Your task to perform on an android device: delete location history Image 0: 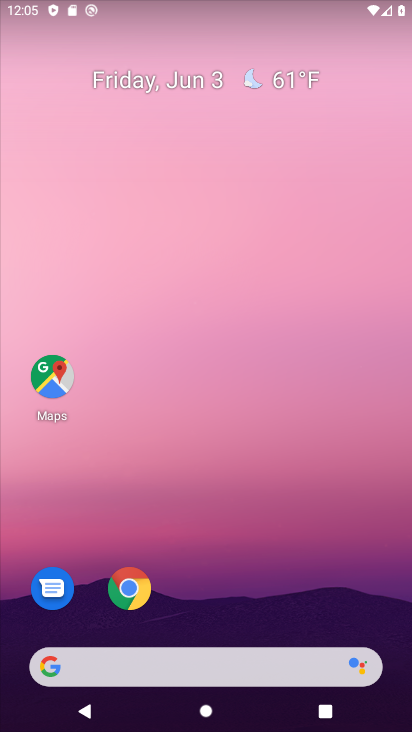
Step 0: drag from (184, 621) to (166, 239)
Your task to perform on an android device: delete location history Image 1: 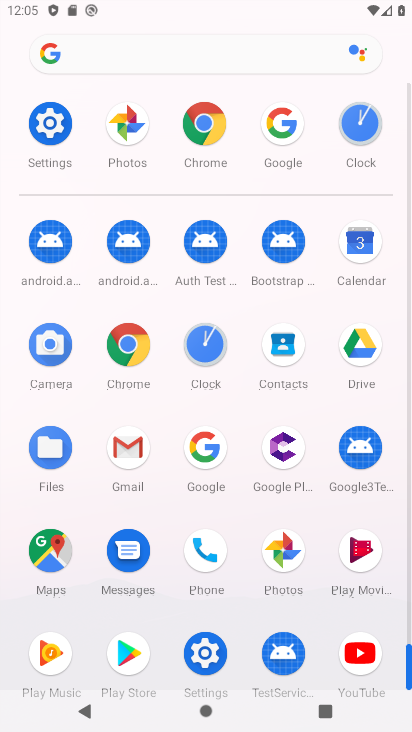
Step 1: drag from (158, 200) to (192, 2)
Your task to perform on an android device: delete location history Image 2: 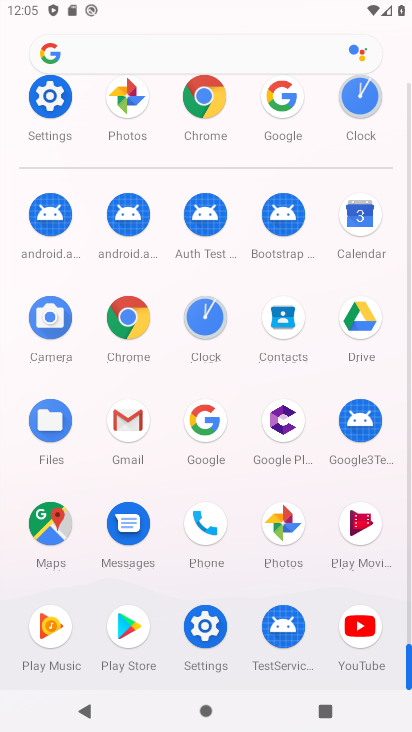
Step 2: click (211, 606)
Your task to perform on an android device: delete location history Image 3: 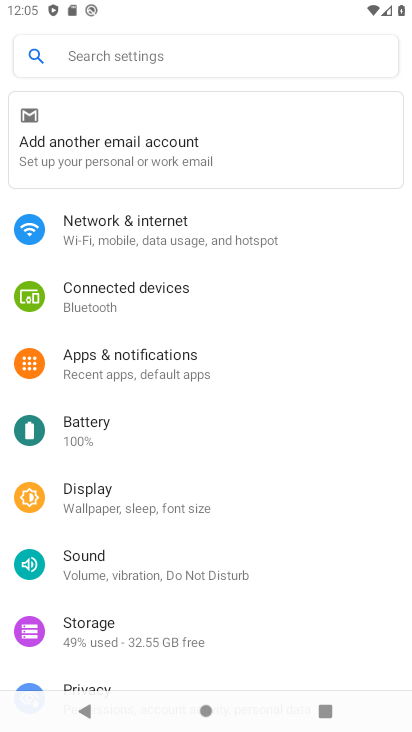
Step 3: drag from (152, 449) to (165, 205)
Your task to perform on an android device: delete location history Image 4: 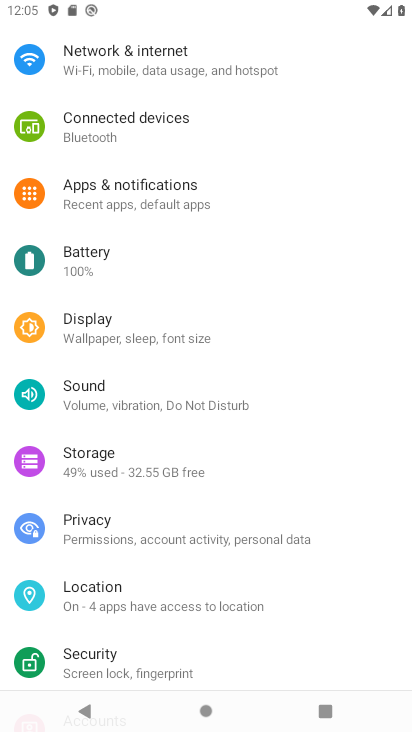
Step 4: click (131, 607)
Your task to perform on an android device: delete location history Image 5: 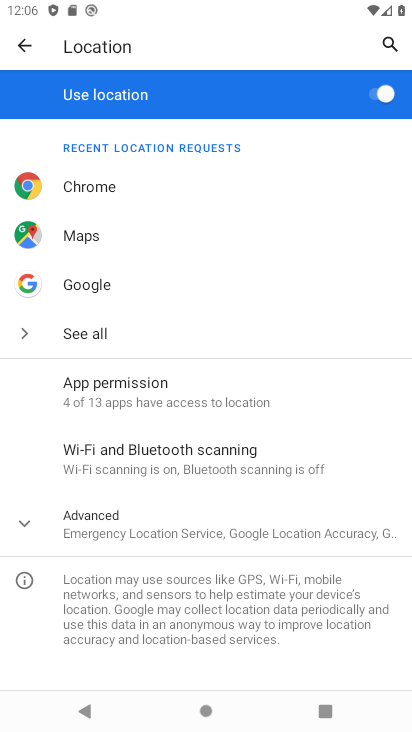
Step 5: click (118, 529)
Your task to perform on an android device: delete location history Image 6: 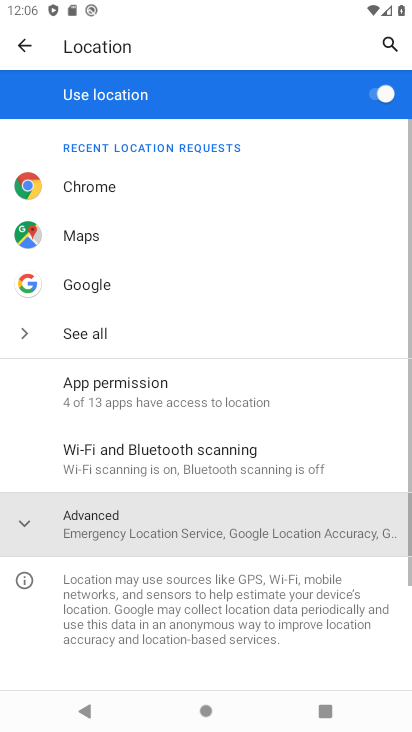
Step 6: drag from (138, 510) to (153, 142)
Your task to perform on an android device: delete location history Image 7: 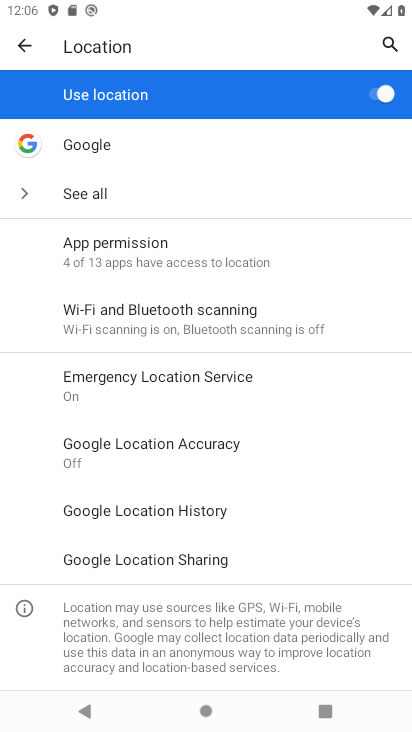
Step 7: drag from (259, 458) to (239, 234)
Your task to perform on an android device: delete location history Image 8: 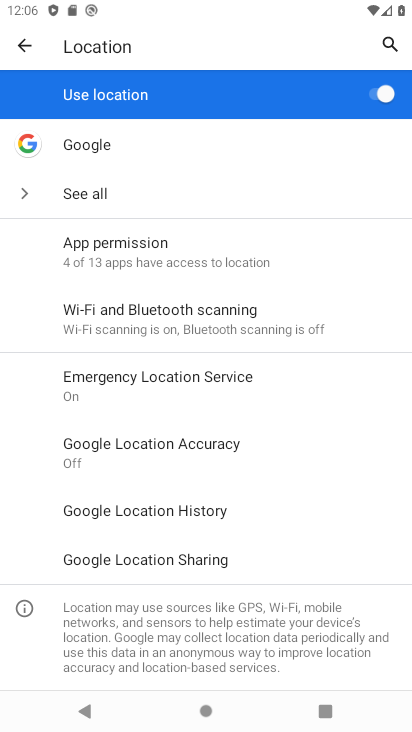
Step 8: click (192, 510)
Your task to perform on an android device: delete location history Image 9: 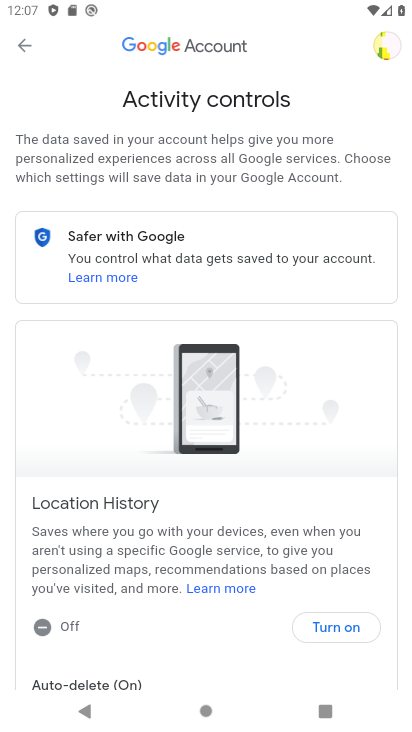
Step 9: drag from (190, 553) to (182, 226)
Your task to perform on an android device: delete location history Image 10: 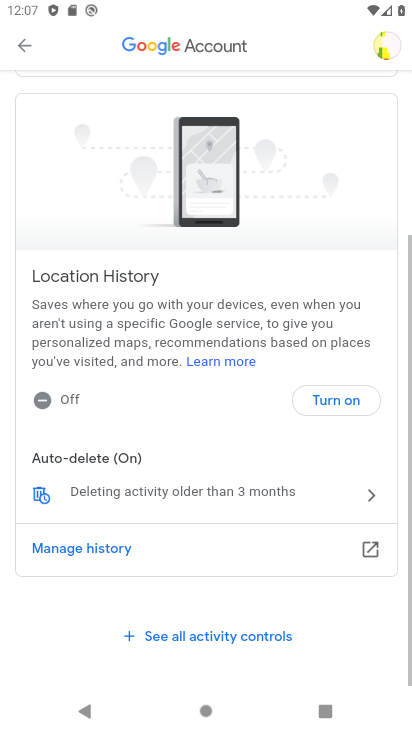
Step 10: click (345, 500)
Your task to perform on an android device: delete location history Image 11: 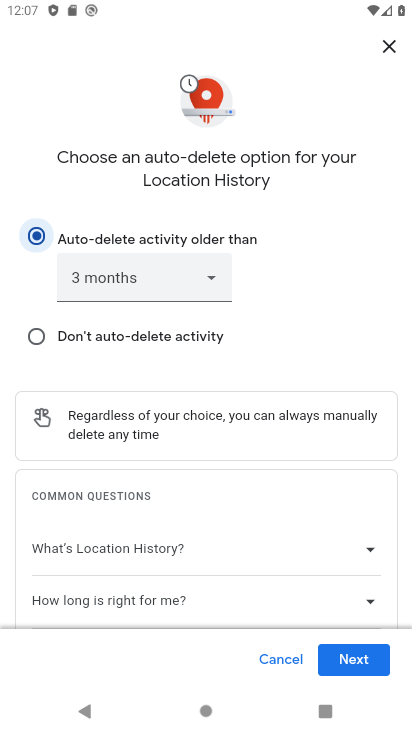
Step 11: click (191, 273)
Your task to perform on an android device: delete location history Image 12: 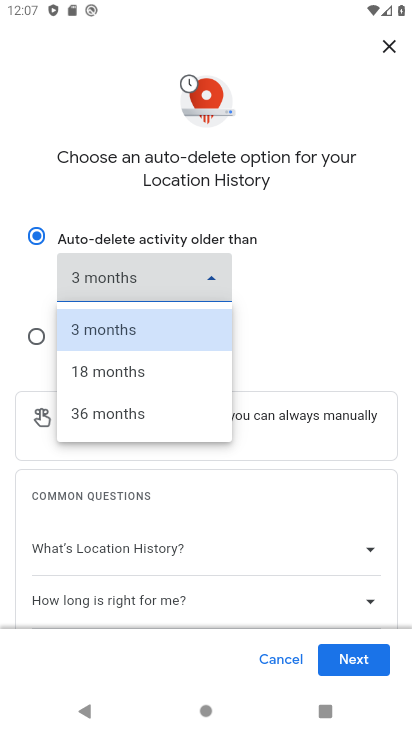
Step 12: click (186, 278)
Your task to perform on an android device: delete location history Image 13: 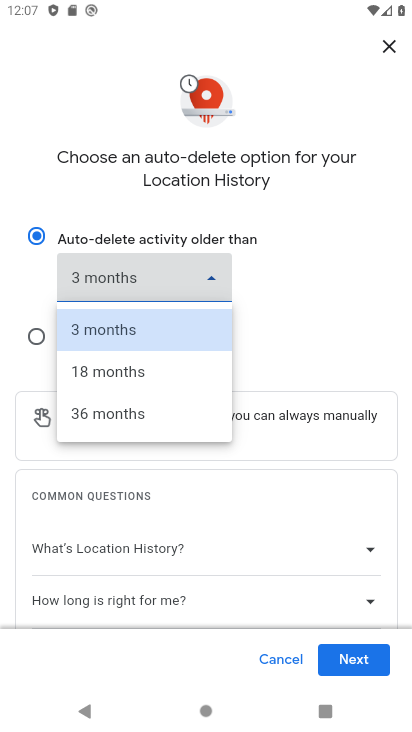
Step 13: click (148, 379)
Your task to perform on an android device: delete location history Image 14: 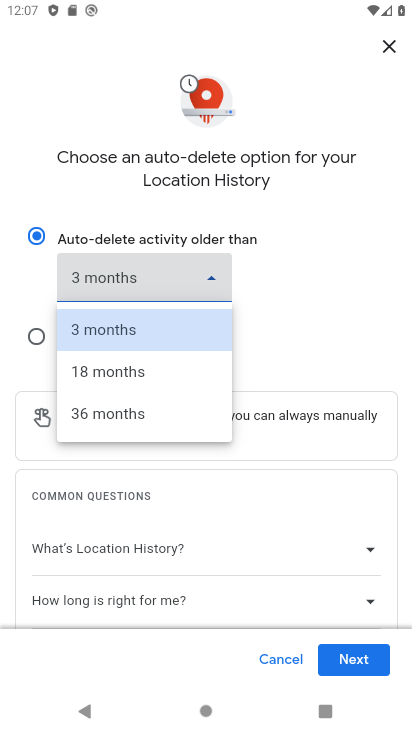
Step 14: click (335, 653)
Your task to perform on an android device: delete location history Image 15: 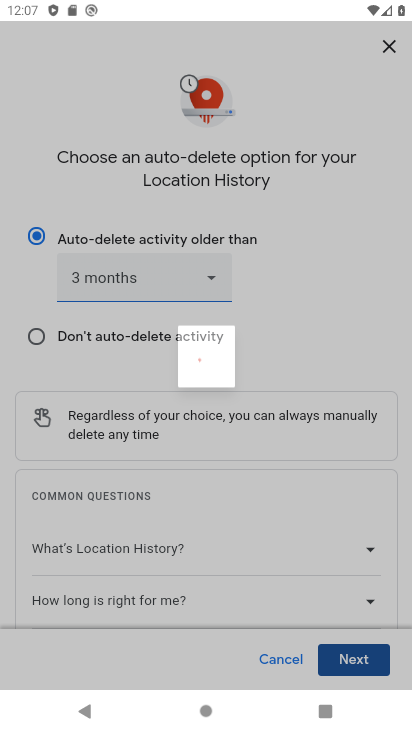
Step 15: click (370, 667)
Your task to perform on an android device: delete location history Image 16: 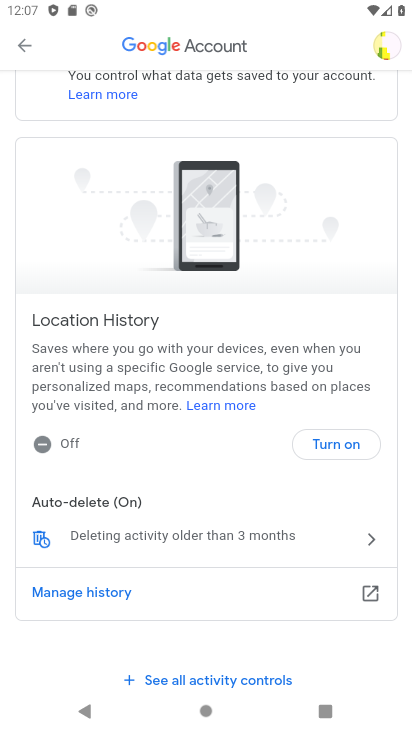
Step 16: task complete